Your task to perform on an android device: Open the calendar and show me this week's events? Image 0: 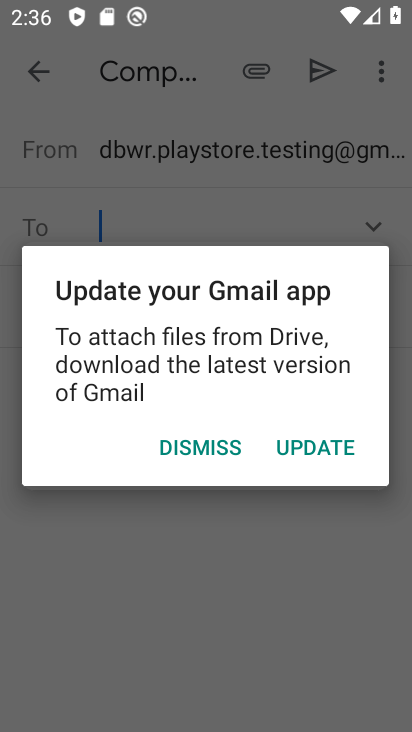
Step 0: press home button
Your task to perform on an android device: Open the calendar and show me this week's events? Image 1: 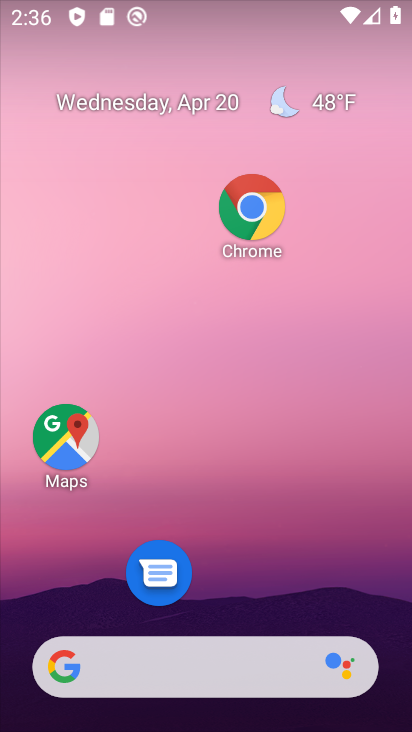
Step 1: drag from (235, 638) to (235, 163)
Your task to perform on an android device: Open the calendar and show me this week's events? Image 2: 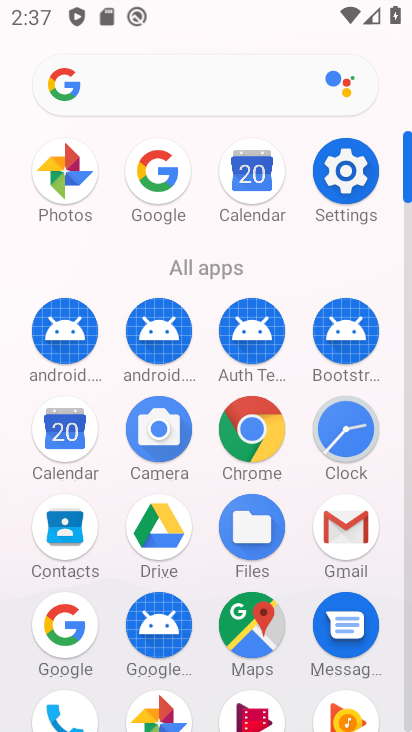
Step 2: click (67, 444)
Your task to perform on an android device: Open the calendar and show me this week's events? Image 3: 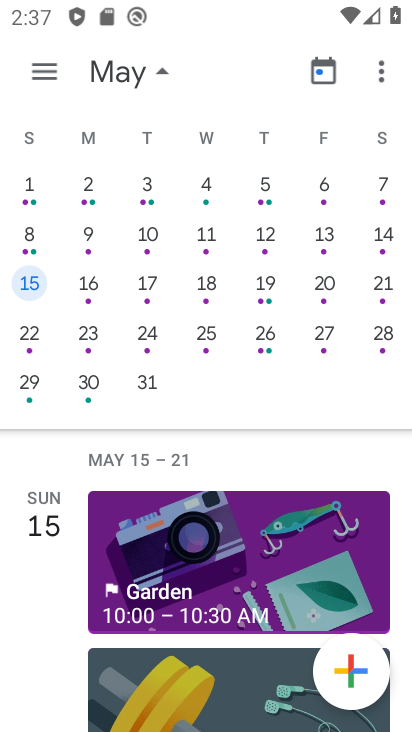
Step 3: drag from (207, 319) to (406, 293)
Your task to perform on an android device: Open the calendar and show me this week's events? Image 4: 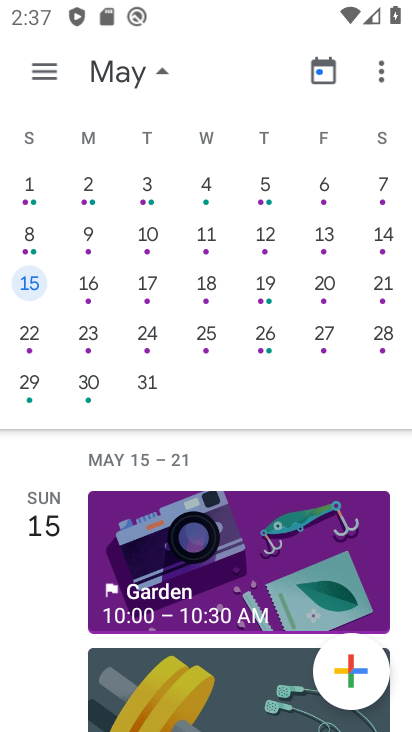
Step 4: drag from (114, 313) to (411, 415)
Your task to perform on an android device: Open the calendar and show me this week's events? Image 5: 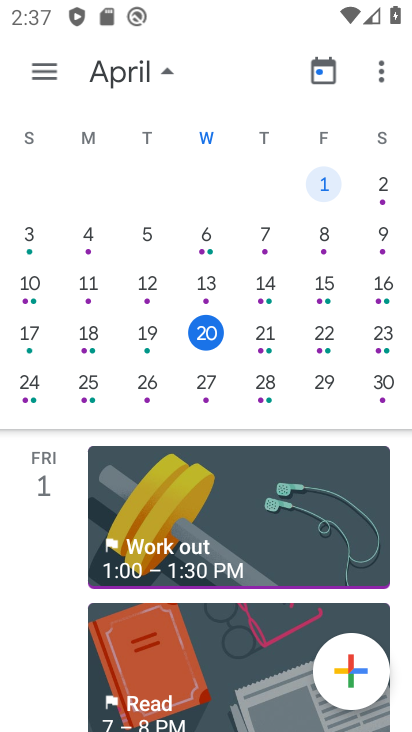
Step 5: click (203, 333)
Your task to perform on an android device: Open the calendar and show me this week's events? Image 6: 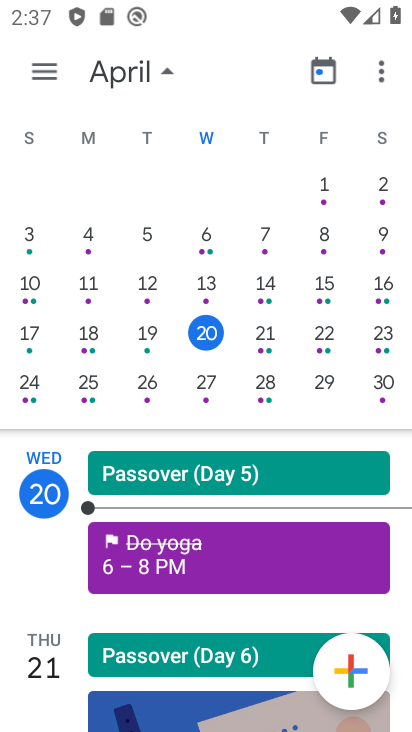
Step 6: task complete